Your task to perform on an android device: Open Amazon Image 0: 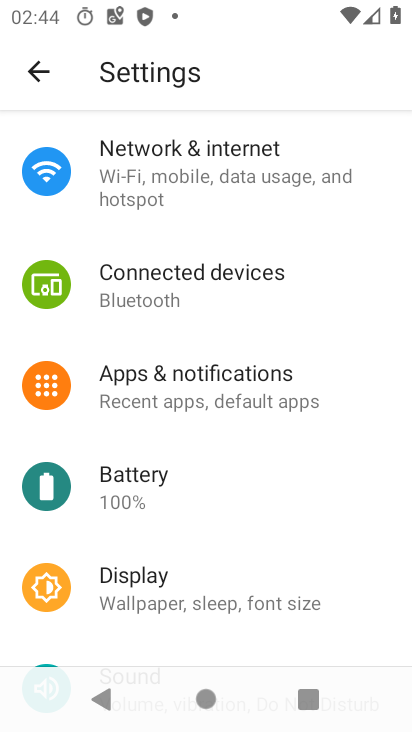
Step 0: press home button
Your task to perform on an android device: Open Amazon Image 1: 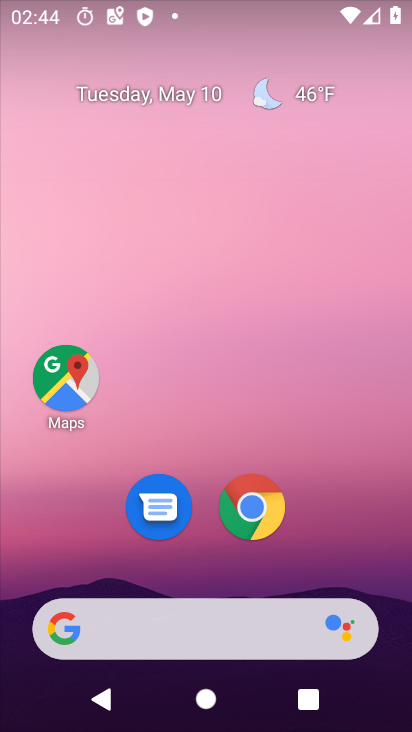
Step 1: drag from (187, 660) to (250, 257)
Your task to perform on an android device: Open Amazon Image 2: 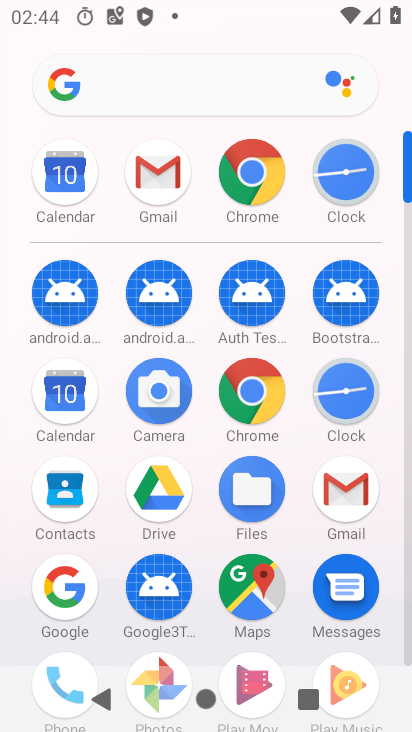
Step 2: click (235, 177)
Your task to perform on an android device: Open Amazon Image 3: 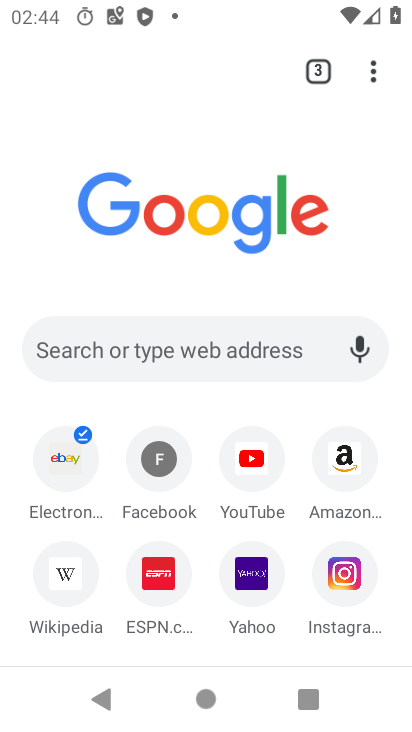
Step 3: click (316, 463)
Your task to perform on an android device: Open Amazon Image 4: 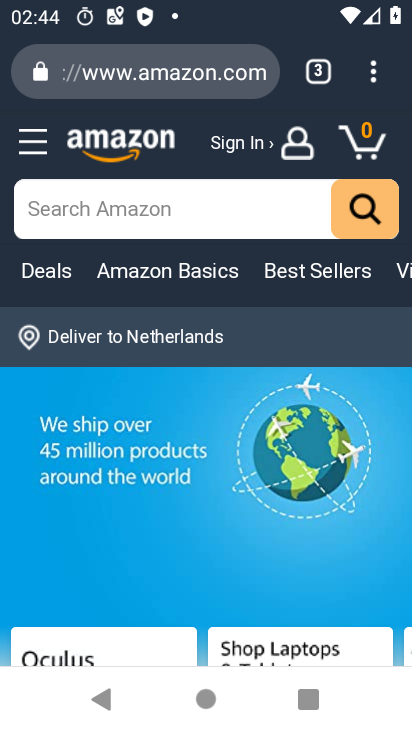
Step 4: task complete